Your task to perform on an android device: uninstall "Reddit" Image 0: 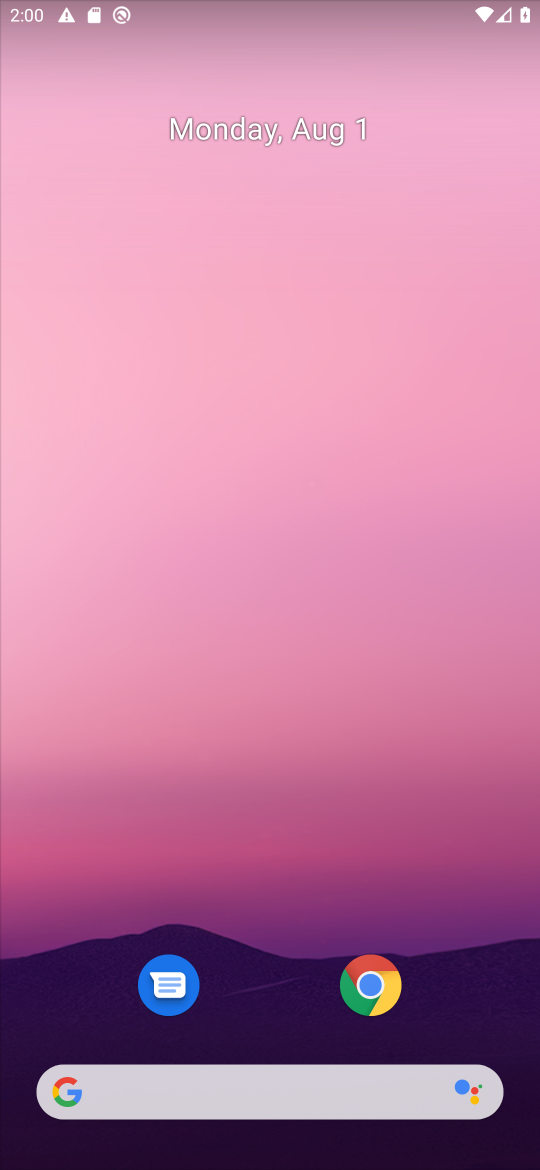
Step 0: drag from (322, 1031) to (299, 143)
Your task to perform on an android device: uninstall "Reddit" Image 1: 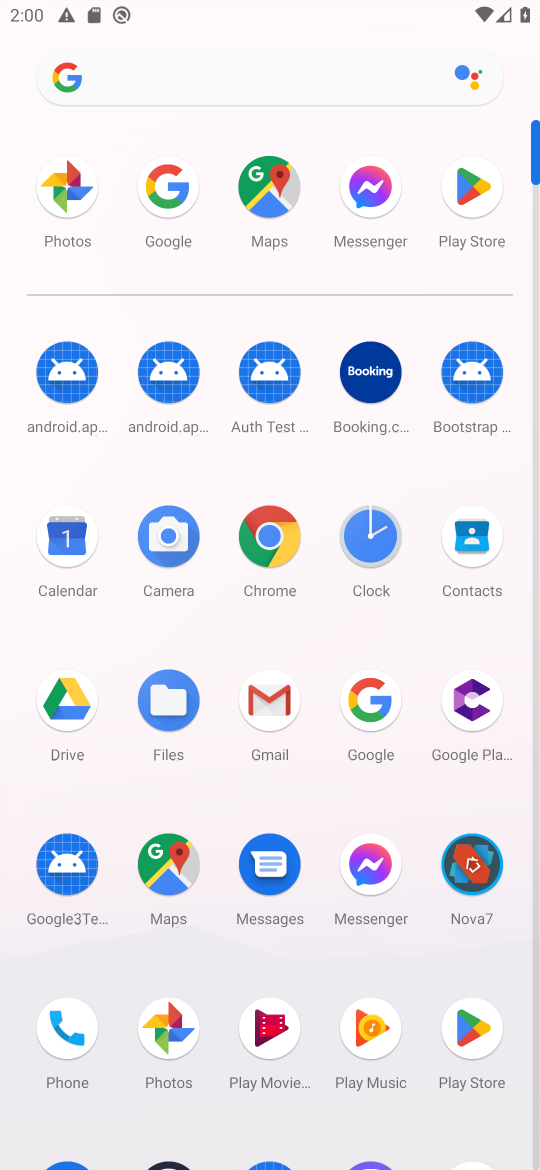
Step 1: click (472, 194)
Your task to perform on an android device: uninstall "Reddit" Image 2: 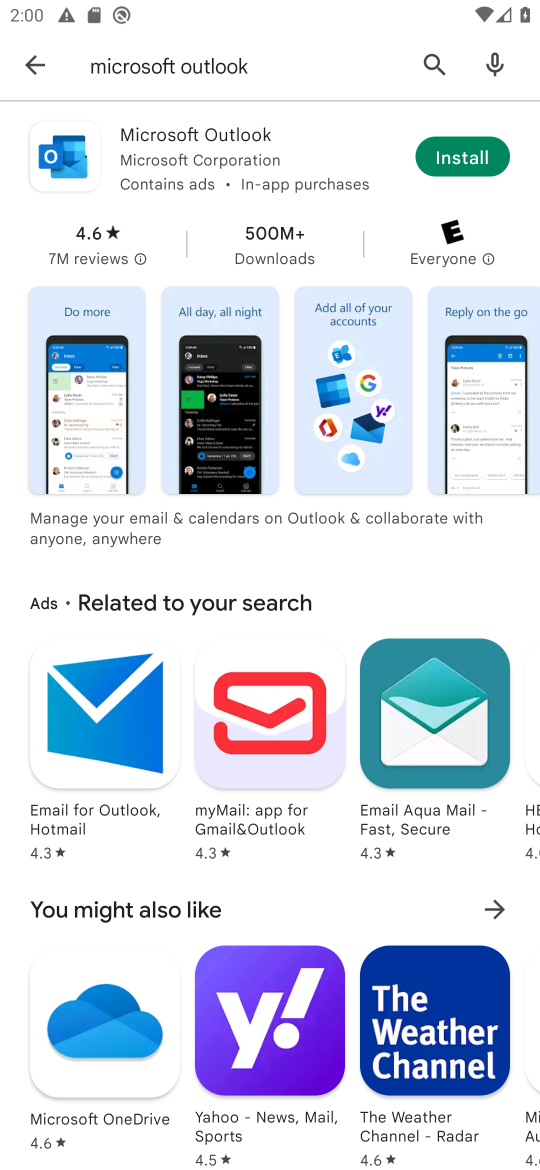
Step 2: click (431, 53)
Your task to perform on an android device: uninstall "Reddit" Image 3: 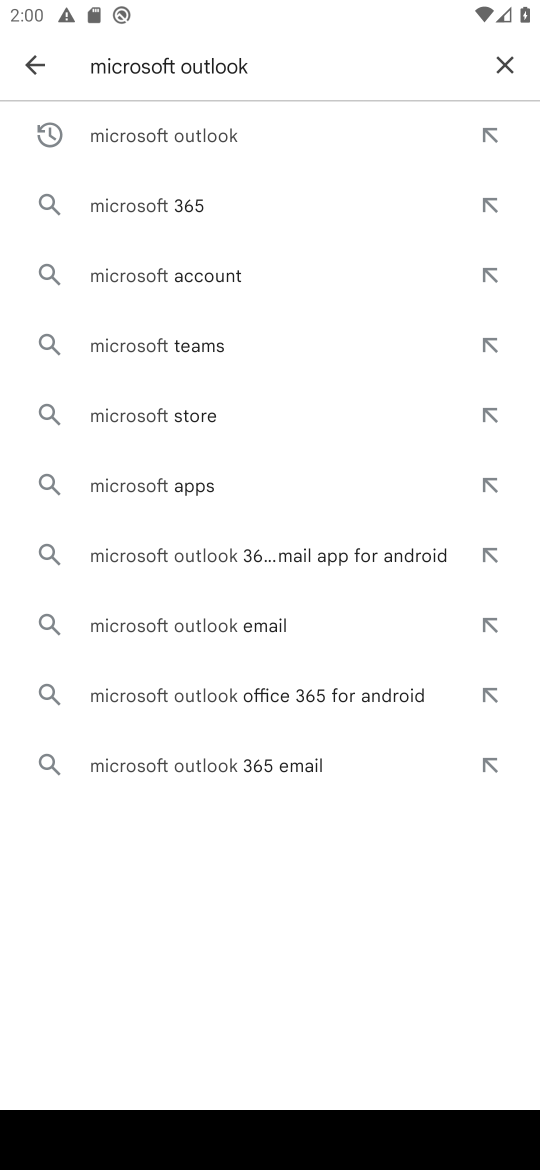
Step 3: click (506, 54)
Your task to perform on an android device: uninstall "Reddit" Image 4: 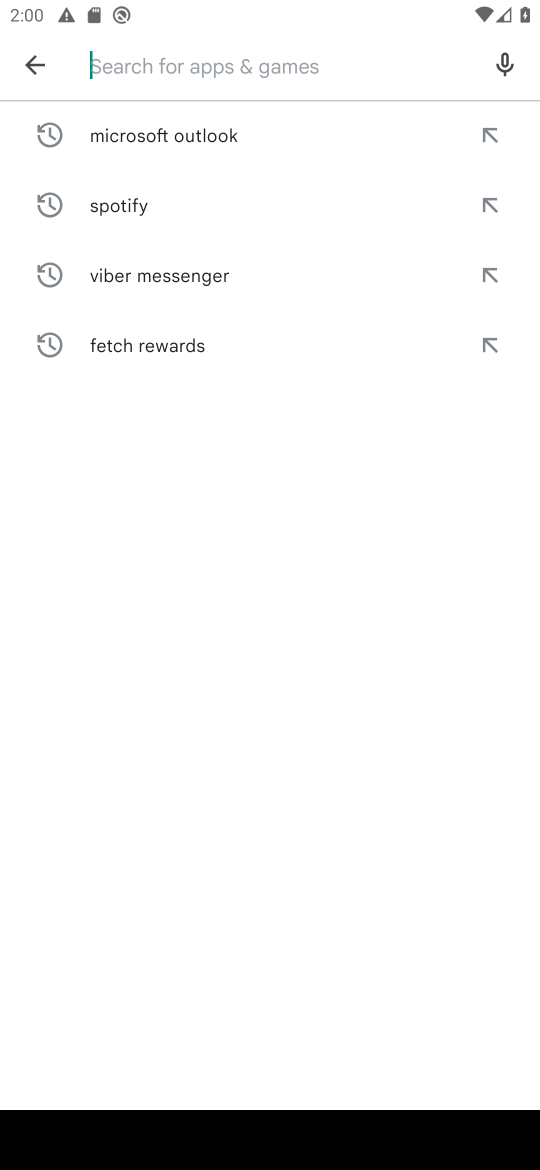
Step 4: type "Reddit"
Your task to perform on an android device: uninstall "Reddit" Image 5: 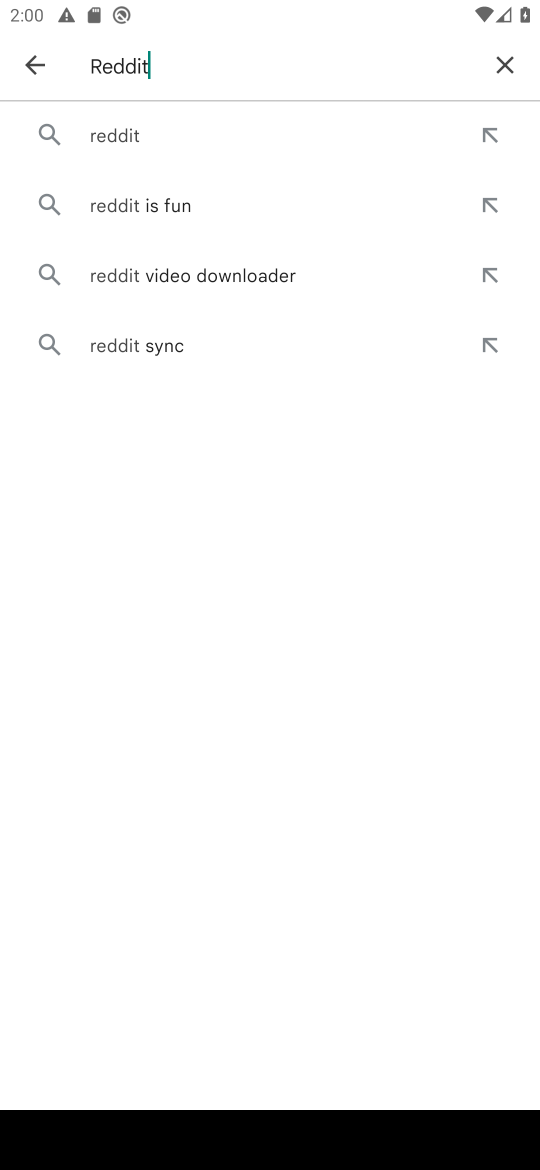
Step 5: type ""
Your task to perform on an android device: uninstall "Reddit" Image 6: 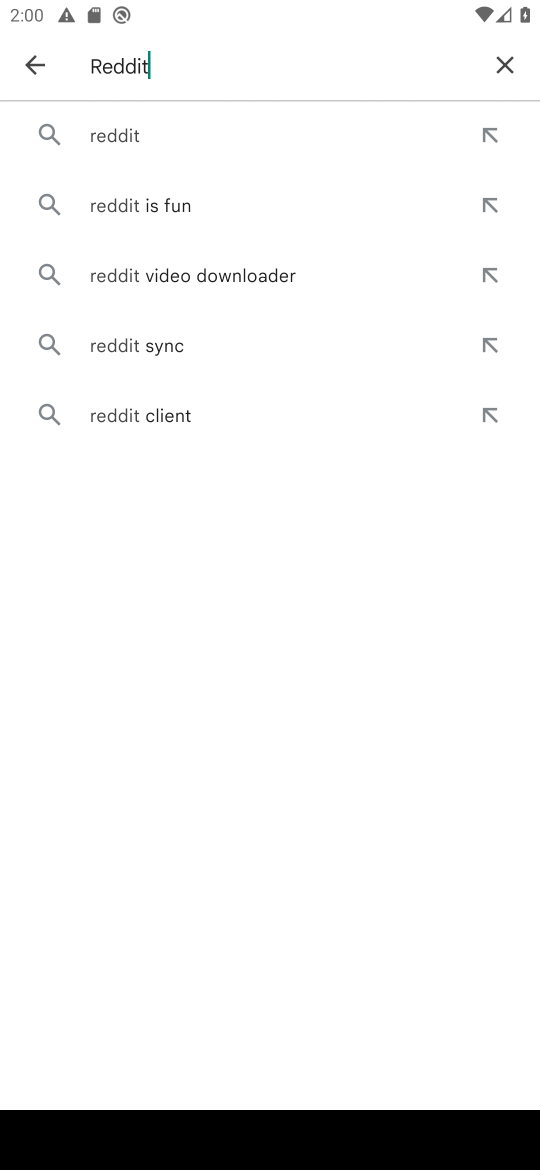
Step 6: click (118, 133)
Your task to perform on an android device: uninstall "Reddit" Image 7: 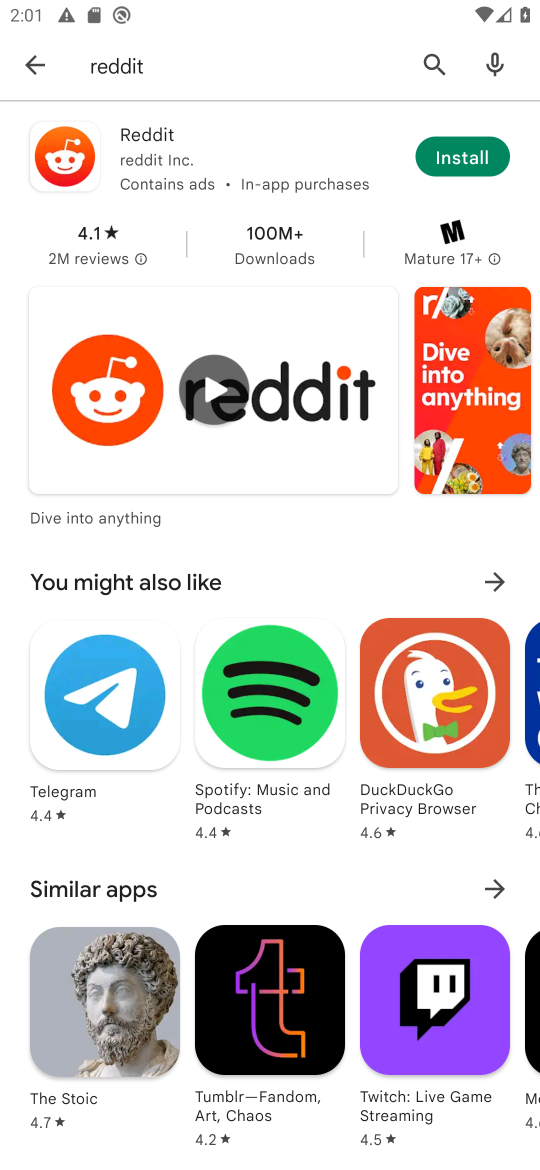
Step 7: task complete